Your task to perform on an android device: uninstall "Gmail" Image 0: 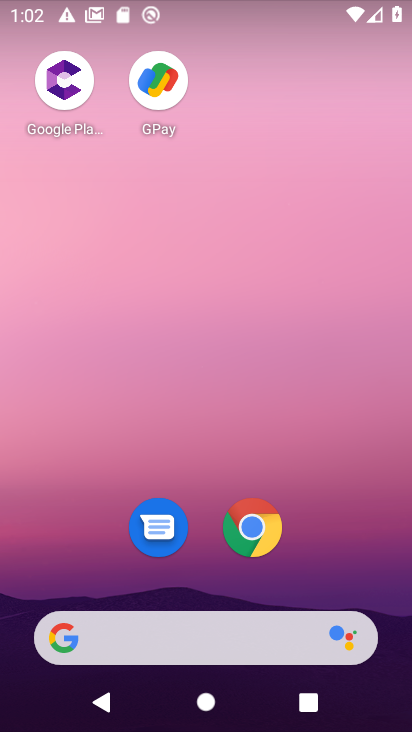
Step 0: drag from (241, 722) to (267, 104)
Your task to perform on an android device: uninstall "Gmail" Image 1: 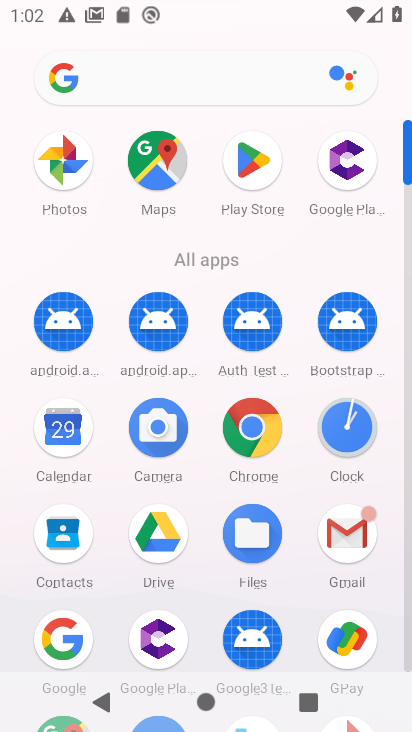
Step 1: click (352, 537)
Your task to perform on an android device: uninstall "Gmail" Image 2: 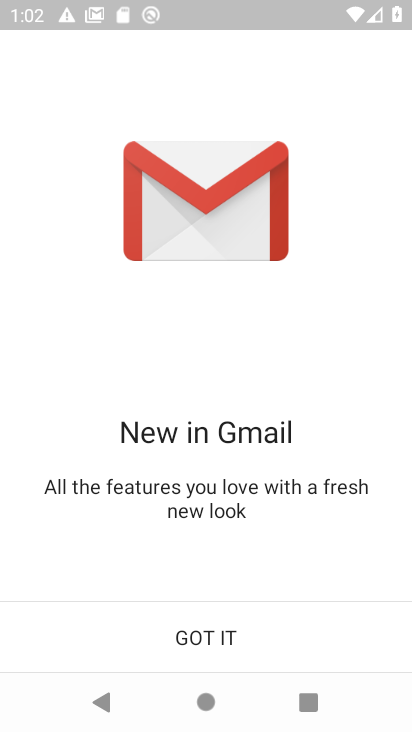
Step 2: press home button
Your task to perform on an android device: uninstall "Gmail" Image 3: 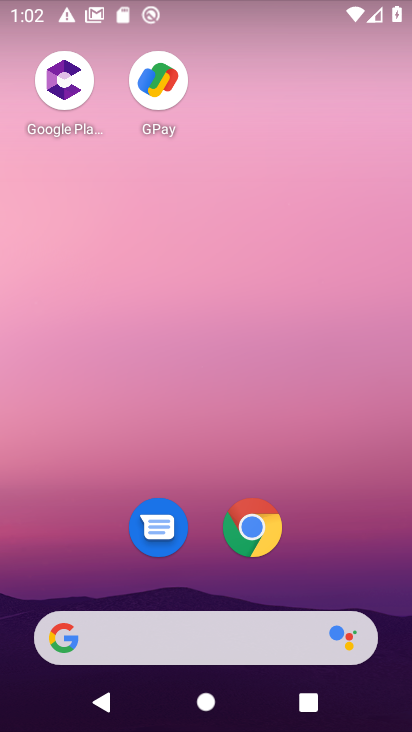
Step 3: drag from (234, 686) to (230, 75)
Your task to perform on an android device: uninstall "Gmail" Image 4: 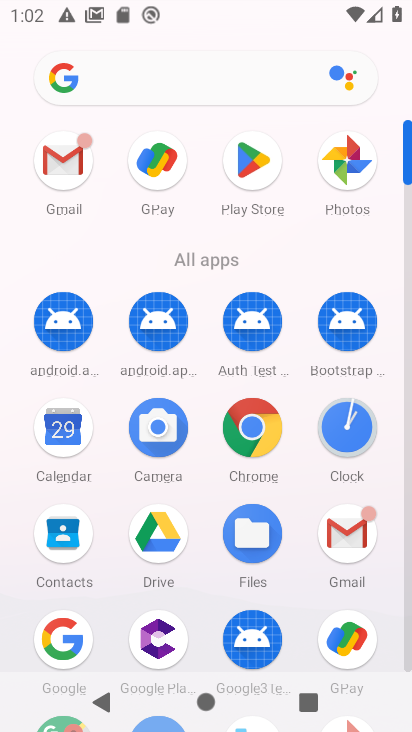
Step 4: click (255, 160)
Your task to perform on an android device: uninstall "Gmail" Image 5: 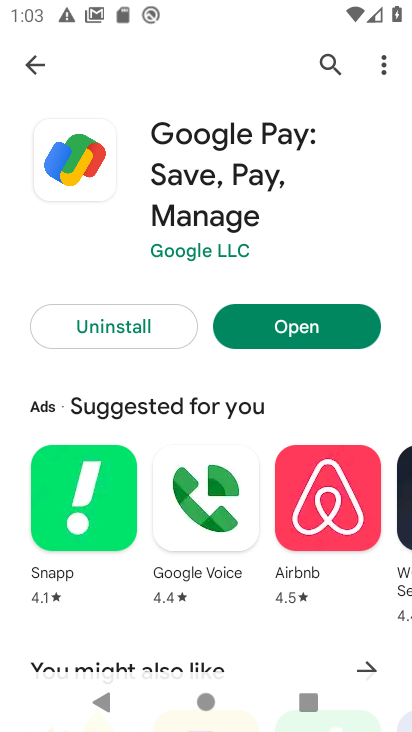
Step 5: click (331, 53)
Your task to perform on an android device: uninstall "Gmail" Image 6: 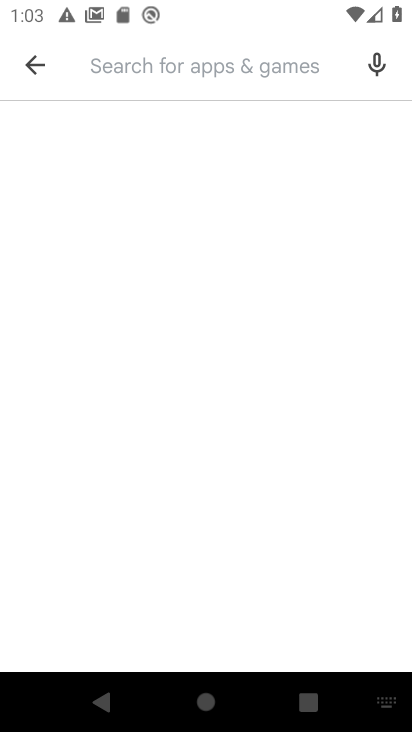
Step 6: type "Gmail"
Your task to perform on an android device: uninstall "Gmail" Image 7: 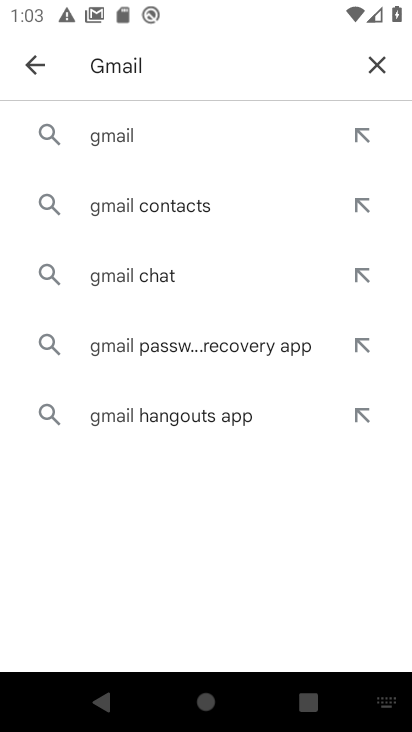
Step 7: click (118, 135)
Your task to perform on an android device: uninstall "Gmail" Image 8: 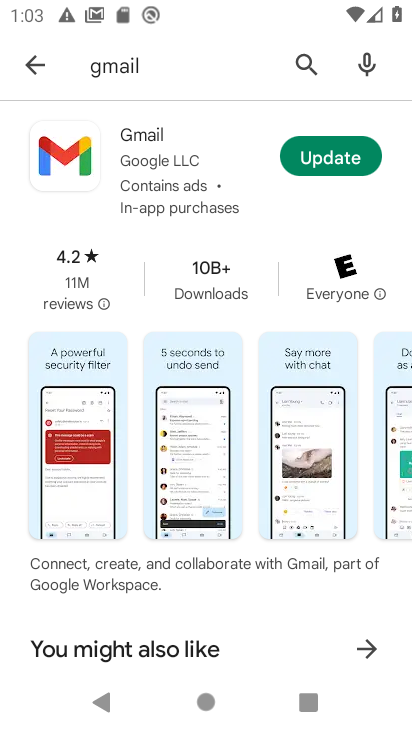
Step 8: task complete